Your task to perform on an android device: star an email in the gmail app Image 0: 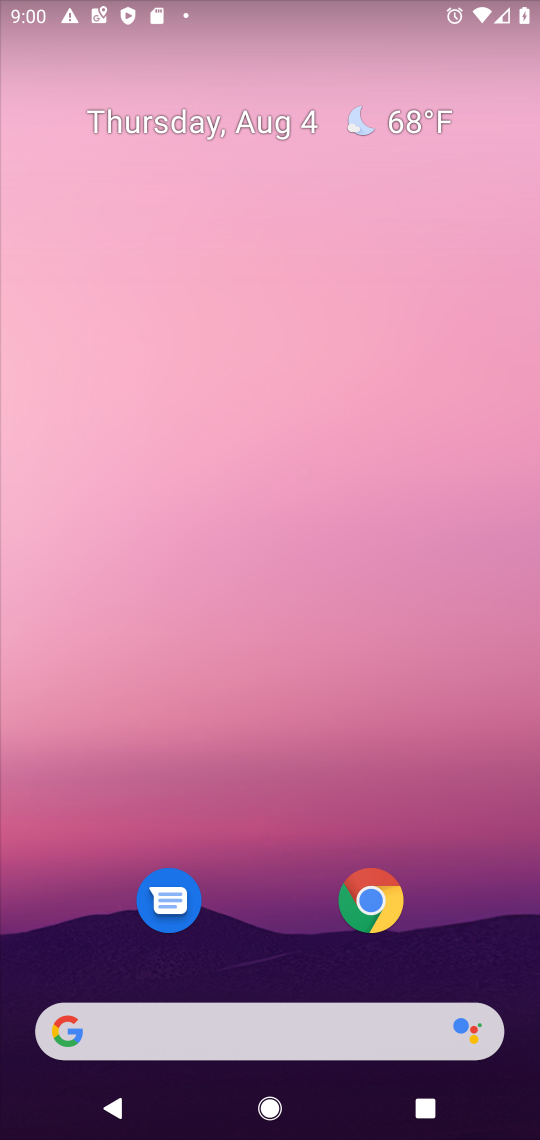
Step 0: drag from (244, 1038) to (363, 106)
Your task to perform on an android device: star an email in the gmail app Image 1: 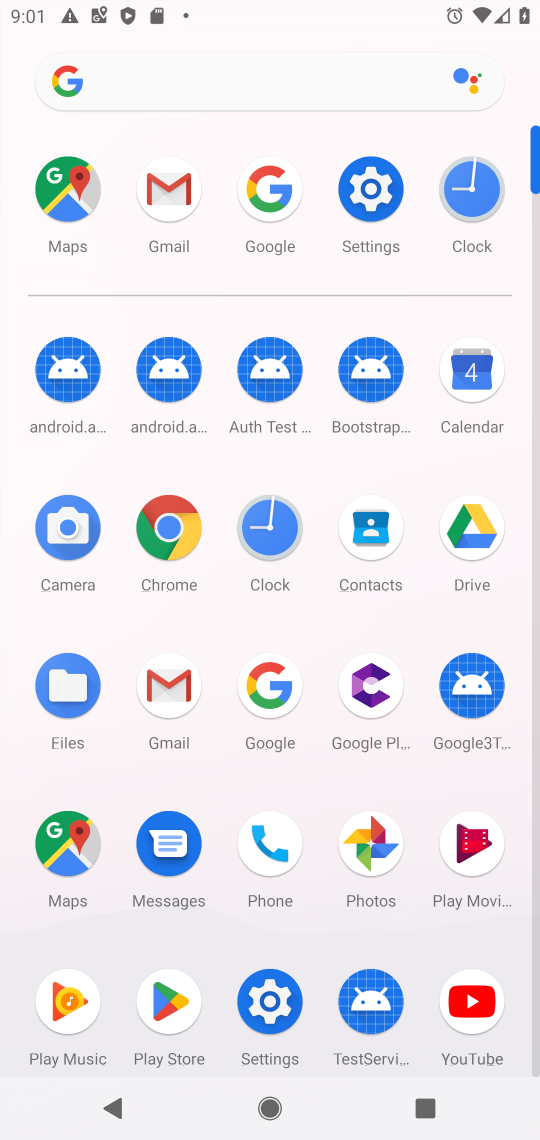
Step 1: click (174, 189)
Your task to perform on an android device: star an email in the gmail app Image 2: 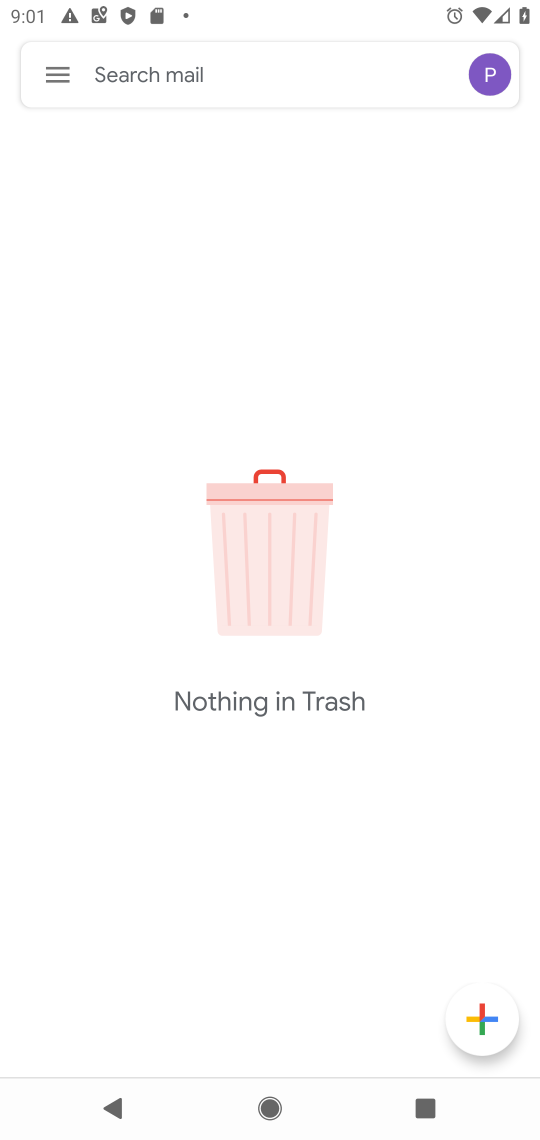
Step 2: click (61, 70)
Your task to perform on an android device: star an email in the gmail app Image 3: 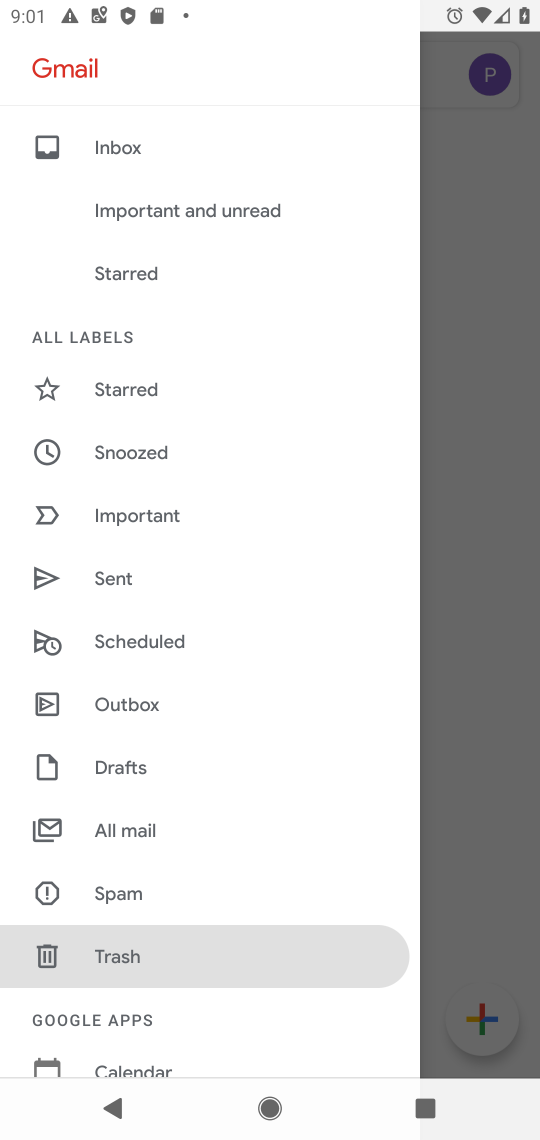
Step 3: click (118, 164)
Your task to perform on an android device: star an email in the gmail app Image 4: 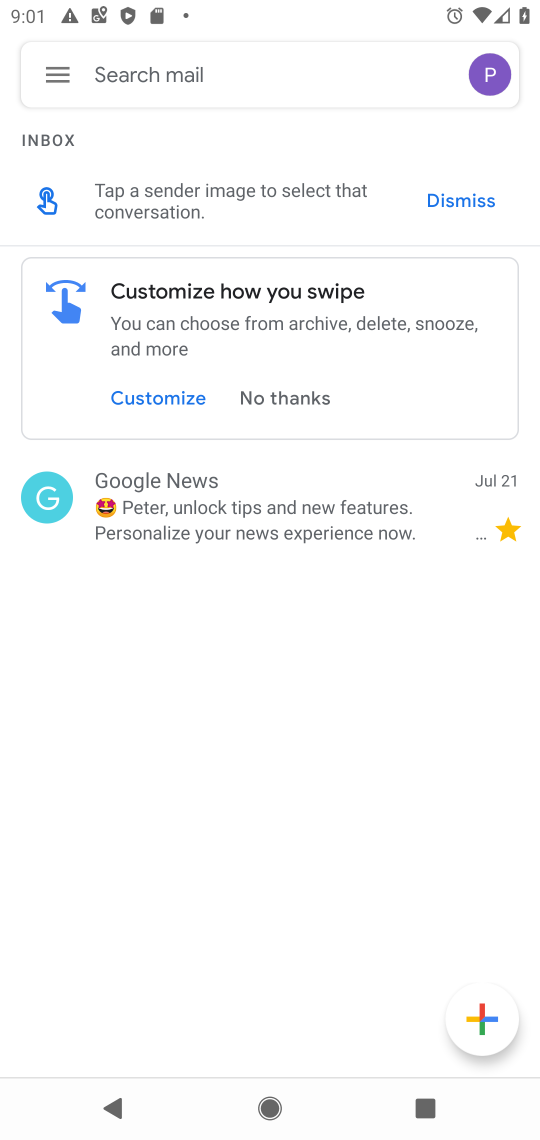
Step 4: task complete